Your task to perform on an android device: turn off location history Image 0: 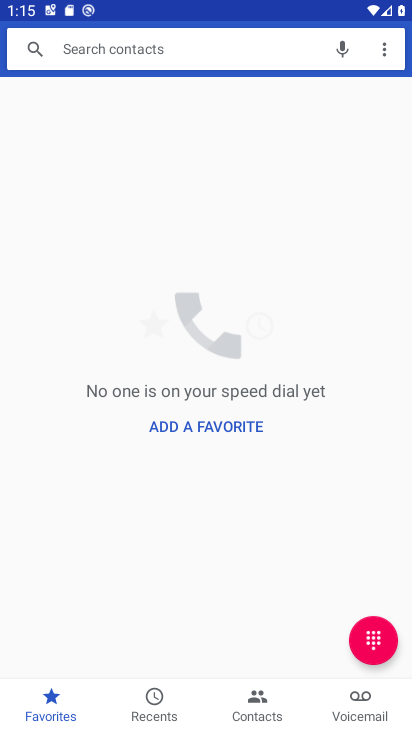
Step 0: press home button
Your task to perform on an android device: turn off location history Image 1: 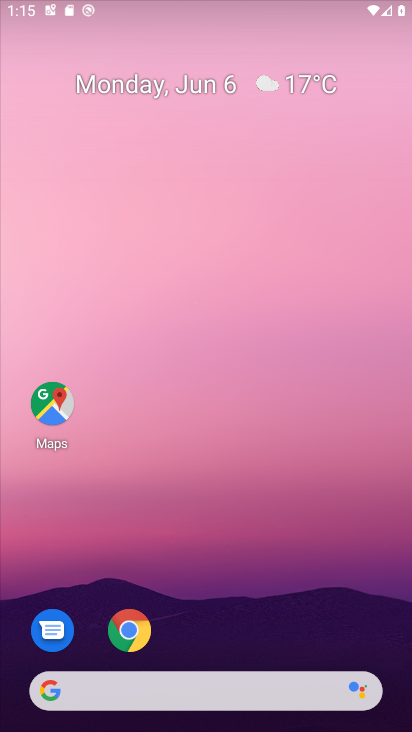
Step 1: drag from (141, 726) to (201, 52)
Your task to perform on an android device: turn off location history Image 2: 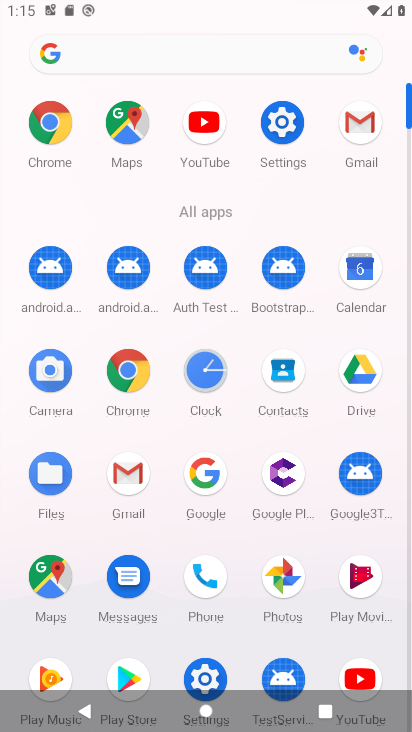
Step 2: click (207, 671)
Your task to perform on an android device: turn off location history Image 3: 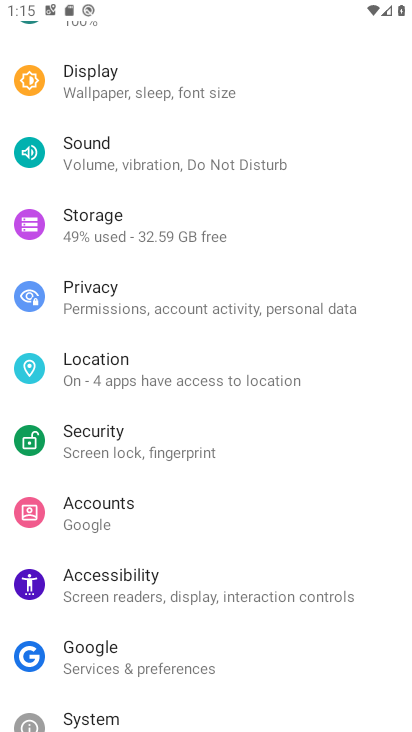
Step 3: click (130, 377)
Your task to perform on an android device: turn off location history Image 4: 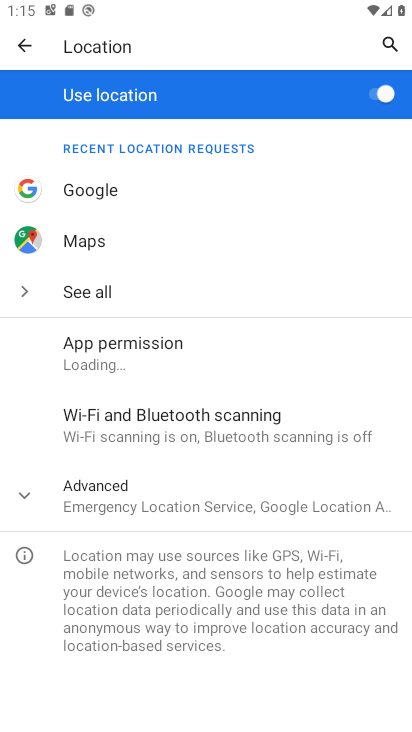
Step 4: click (156, 515)
Your task to perform on an android device: turn off location history Image 5: 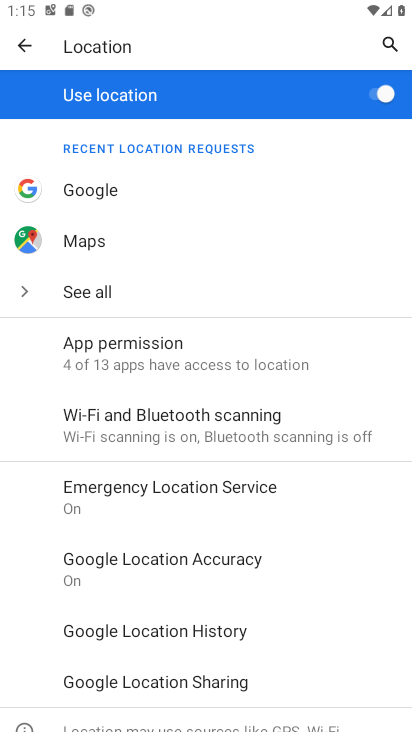
Step 5: click (202, 631)
Your task to perform on an android device: turn off location history Image 6: 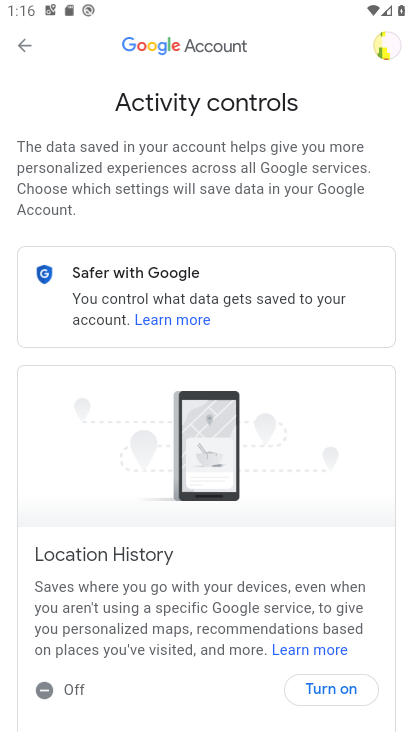
Step 6: task complete